Your task to perform on an android device: Open sound settings Image 0: 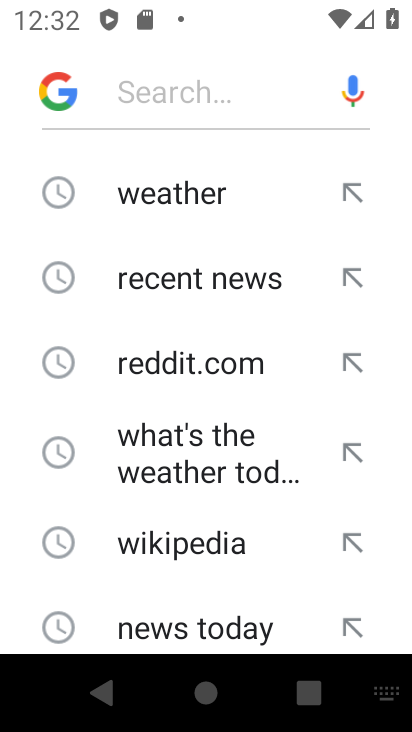
Step 0: press home button
Your task to perform on an android device: Open sound settings Image 1: 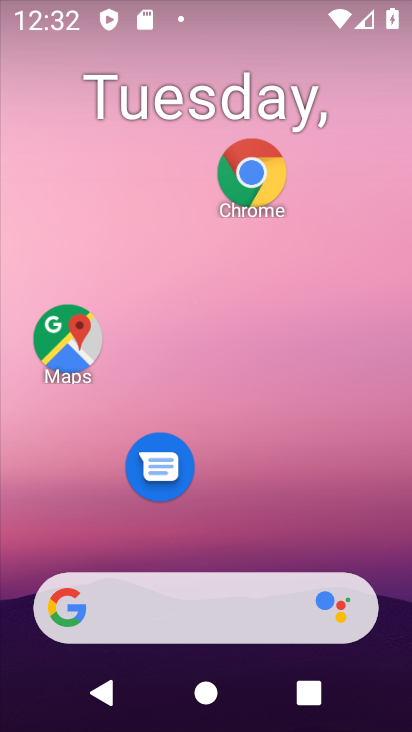
Step 1: drag from (62, 527) to (211, 36)
Your task to perform on an android device: Open sound settings Image 2: 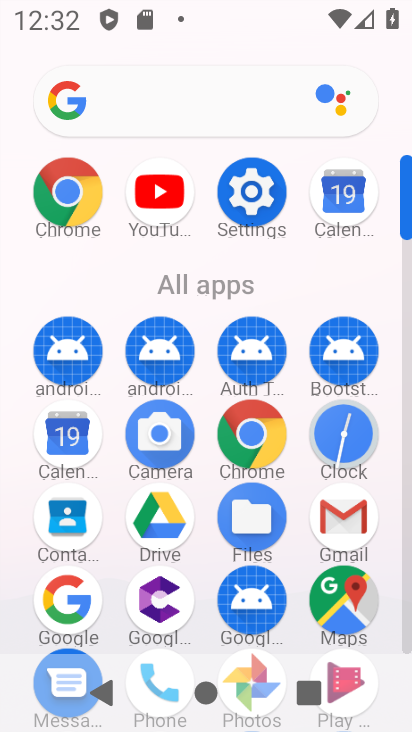
Step 2: click (255, 189)
Your task to perform on an android device: Open sound settings Image 3: 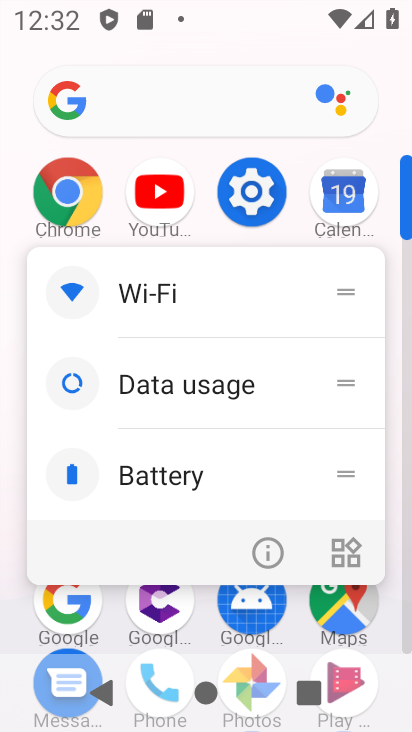
Step 3: click (262, 185)
Your task to perform on an android device: Open sound settings Image 4: 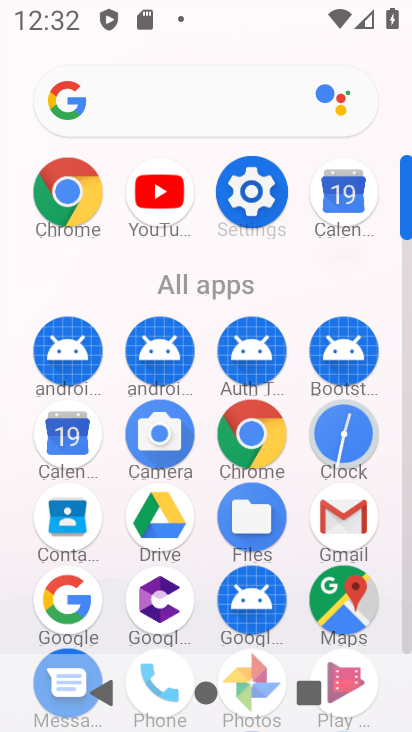
Step 4: click (251, 210)
Your task to perform on an android device: Open sound settings Image 5: 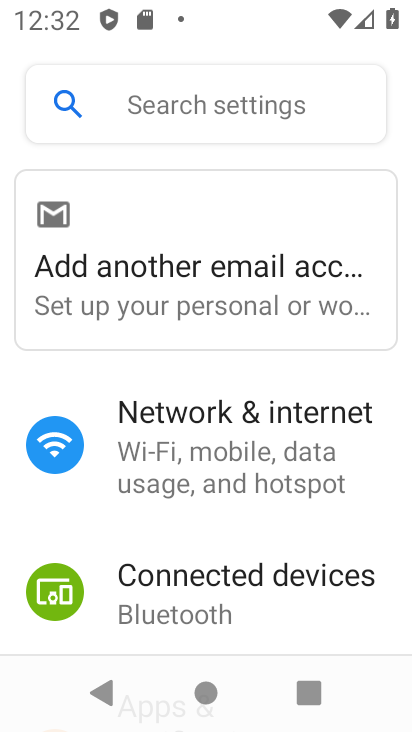
Step 5: drag from (264, 622) to (259, 110)
Your task to perform on an android device: Open sound settings Image 6: 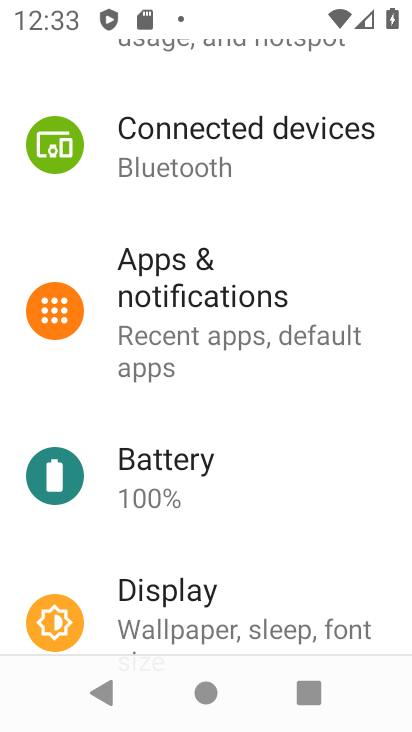
Step 6: drag from (184, 650) to (248, 238)
Your task to perform on an android device: Open sound settings Image 7: 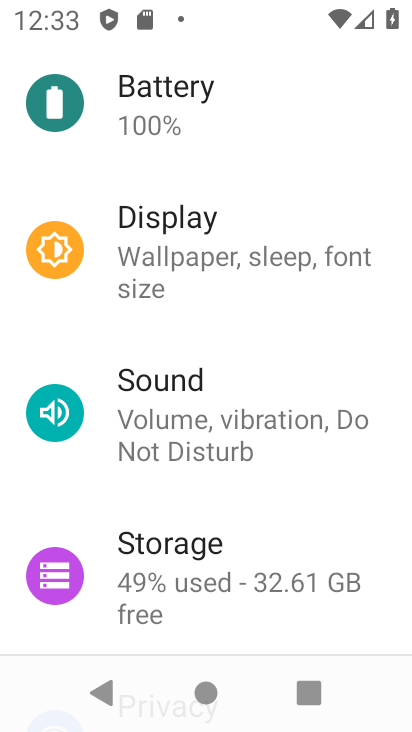
Step 7: click (194, 412)
Your task to perform on an android device: Open sound settings Image 8: 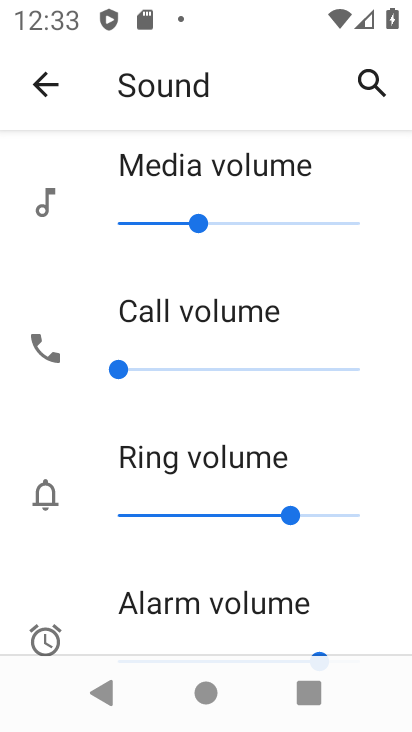
Step 8: task complete